Your task to perform on an android device: check out phone information Image 0: 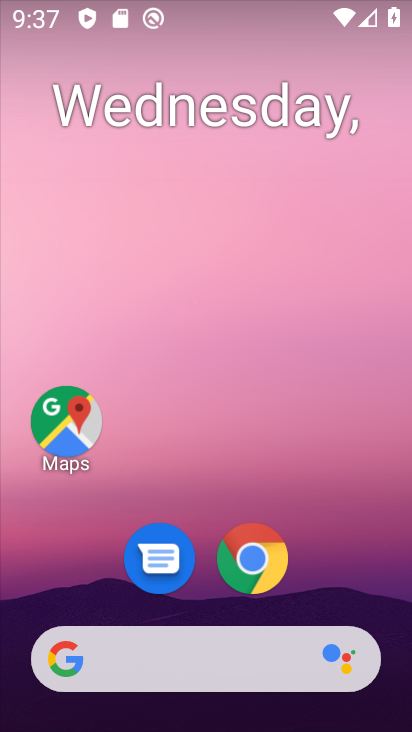
Step 0: drag from (57, 660) to (210, 178)
Your task to perform on an android device: check out phone information Image 1: 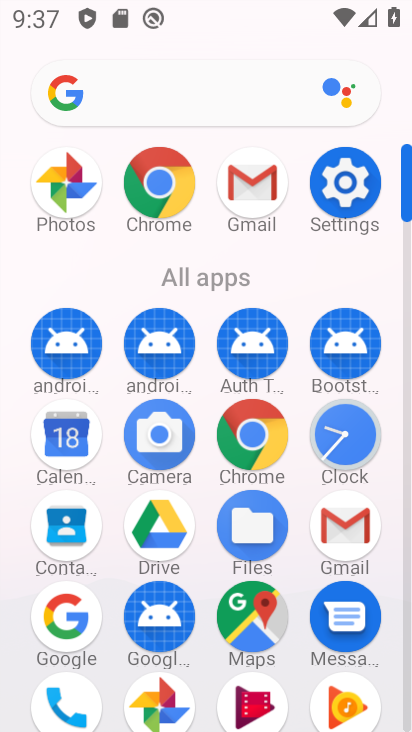
Step 1: click (63, 701)
Your task to perform on an android device: check out phone information Image 2: 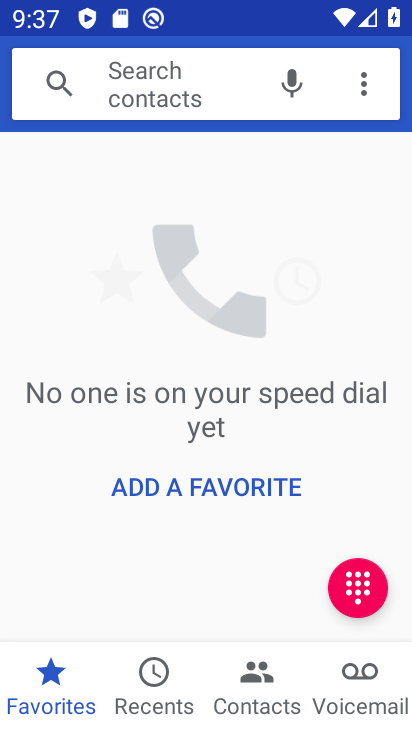
Step 2: task complete